Your task to perform on an android device: Go to Wikipedia Image 0: 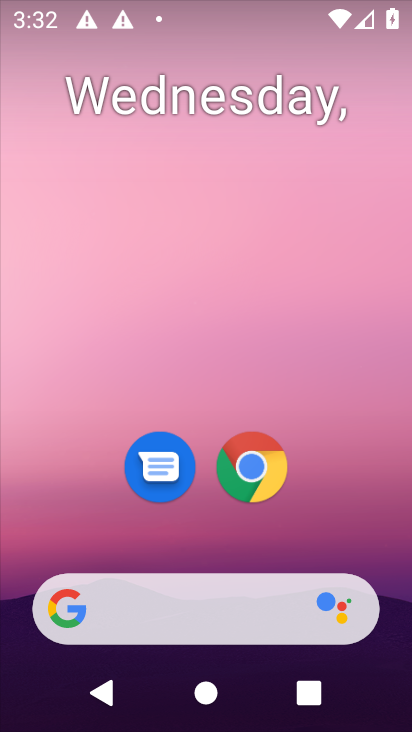
Step 0: click (164, 612)
Your task to perform on an android device: Go to Wikipedia Image 1: 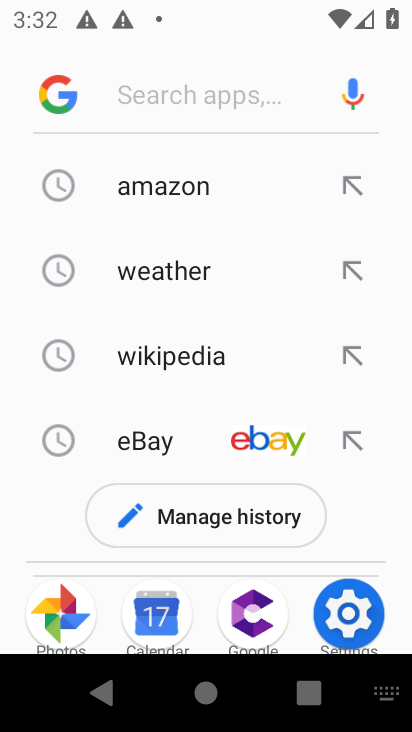
Step 1: type "Wikipedia"
Your task to perform on an android device: Go to Wikipedia Image 2: 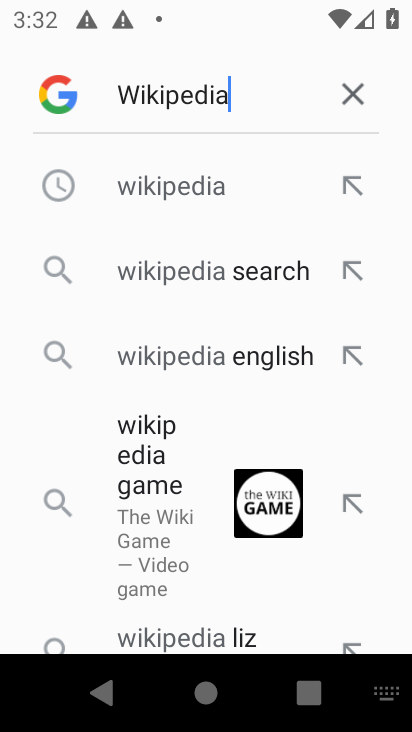
Step 2: click (159, 178)
Your task to perform on an android device: Go to Wikipedia Image 3: 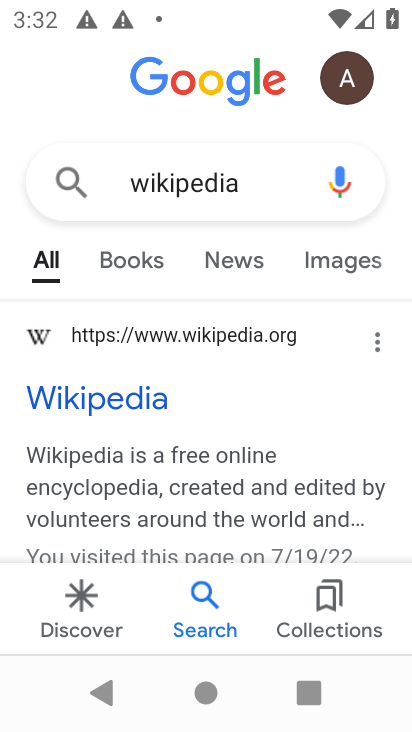
Step 3: task complete